Your task to perform on an android device: Go to Yahoo.com Image 0: 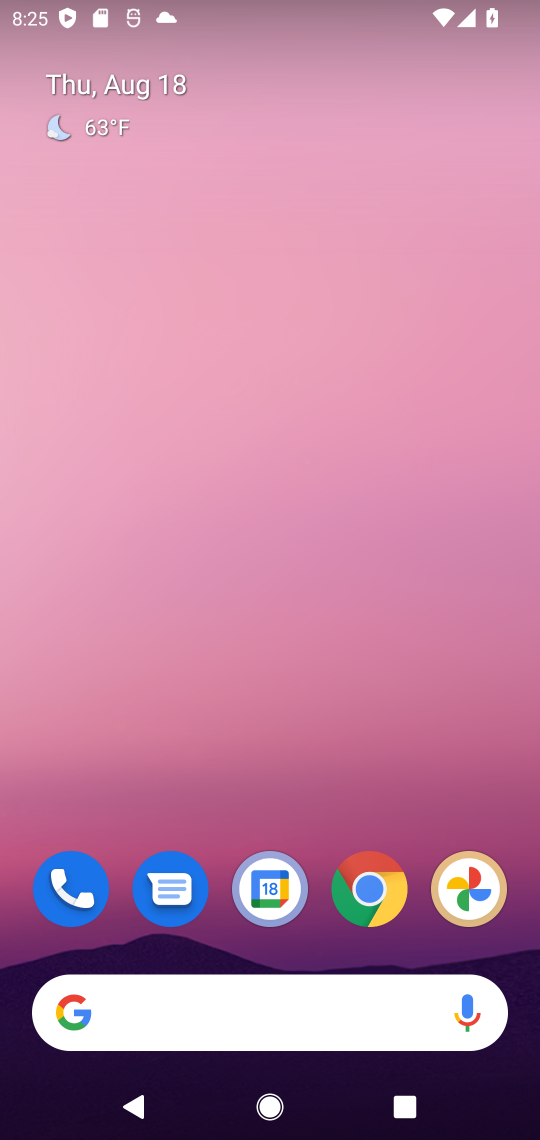
Step 0: press home button
Your task to perform on an android device: Go to Yahoo.com Image 1: 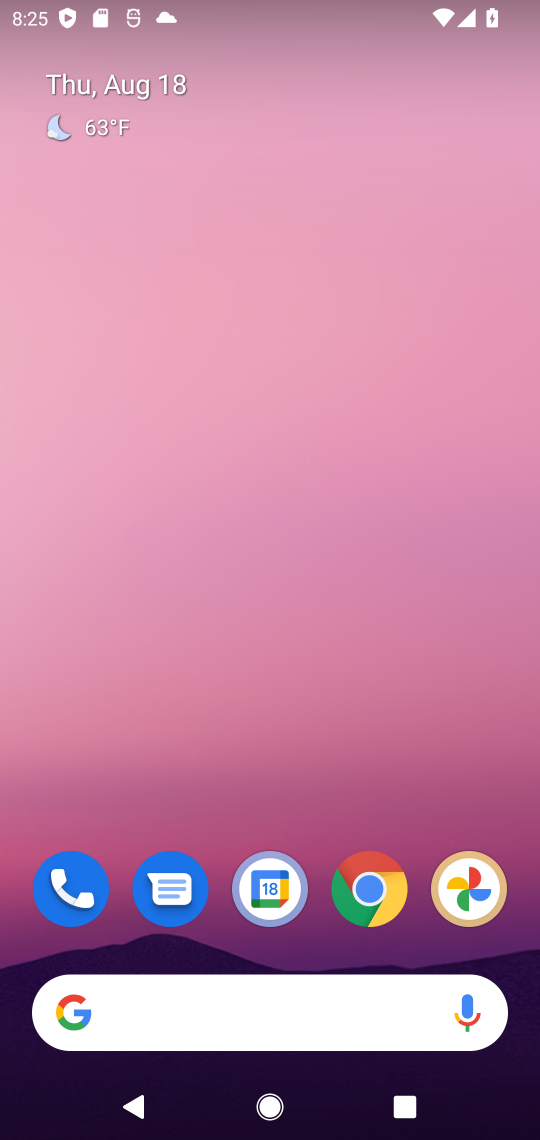
Step 1: click (73, 1013)
Your task to perform on an android device: Go to Yahoo.com Image 2: 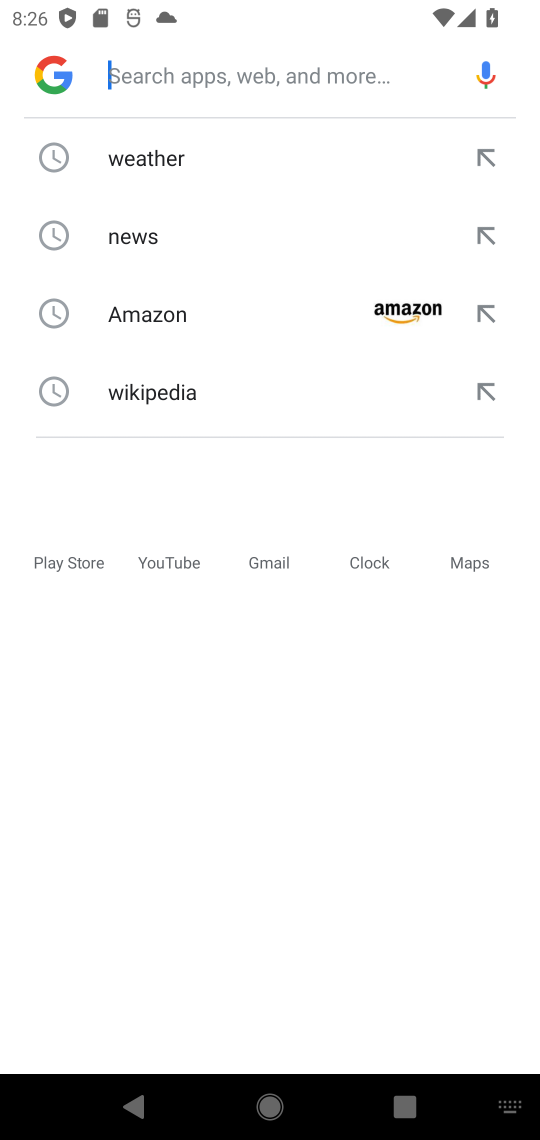
Step 2: type "Yahoo.com"
Your task to perform on an android device: Go to Yahoo.com Image 3: 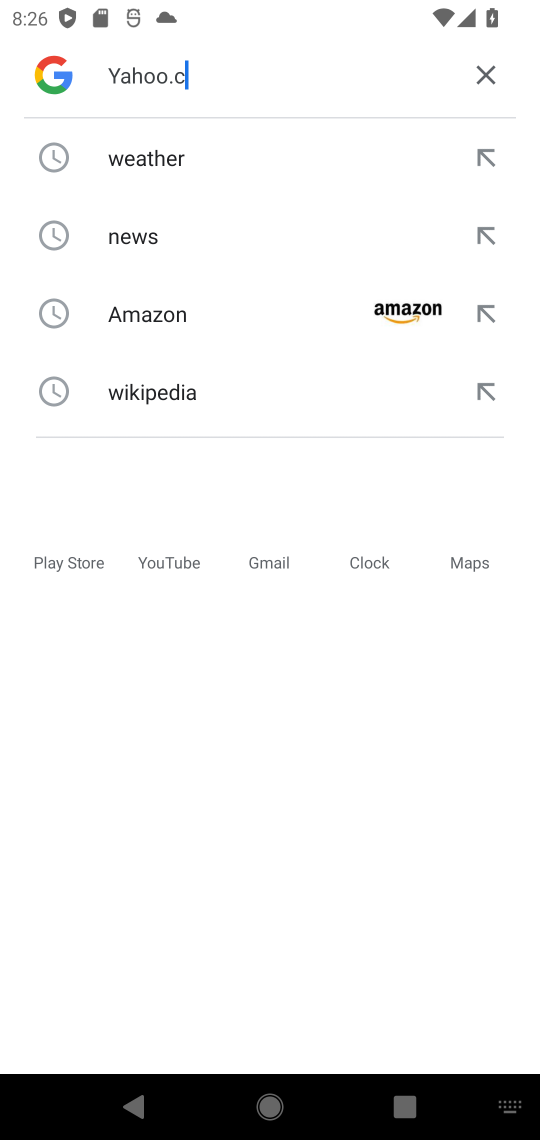
Step 3: press enter
Your task to perform on an android device: Go to Yahoo.com Image 4: 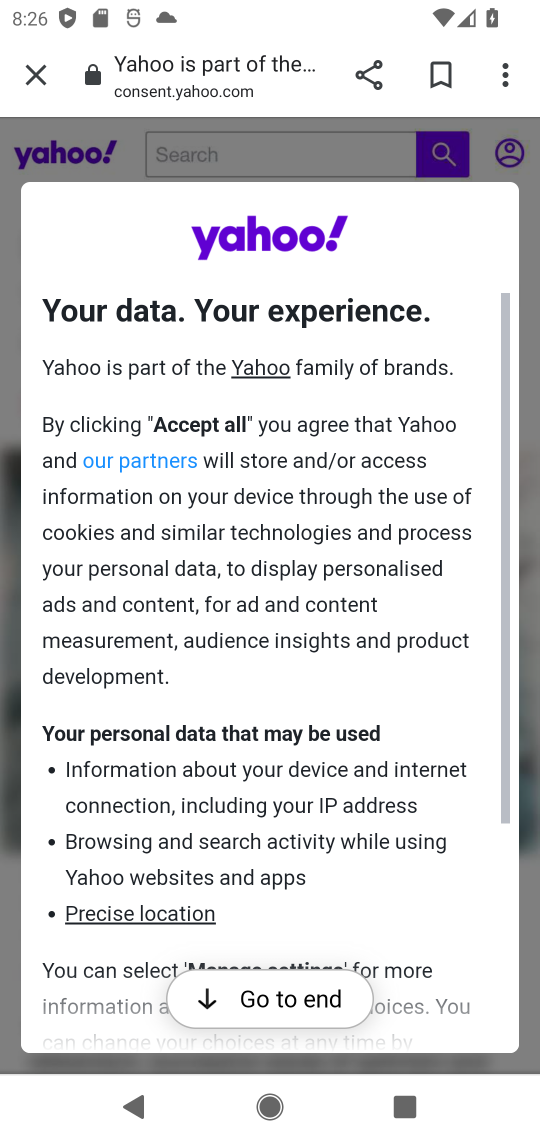
Step 4: click (294, 988)
Your task to perform on an android device: Go to Yahoo.com Image 5: 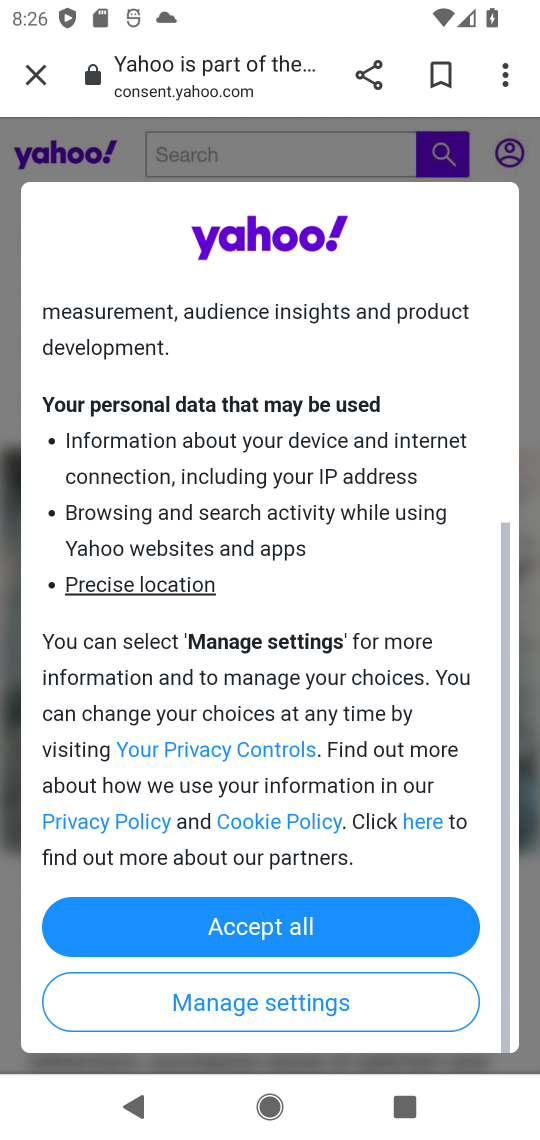
Step 5: click (196, 923)
Your task to perform on an android device: Go to Yahoo.com Image 6: 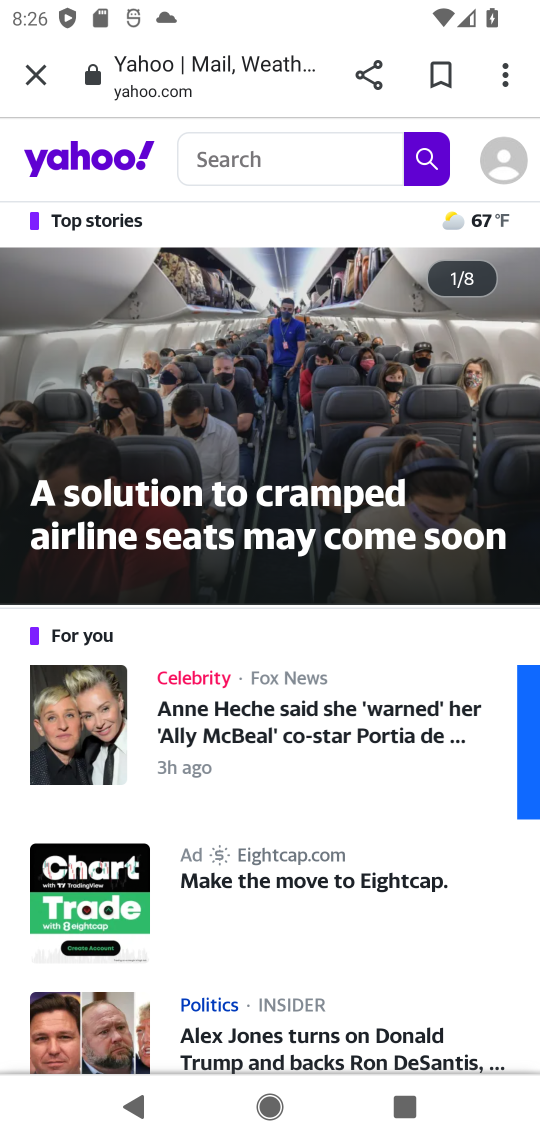
Step 6: task complete